Your task to perform on an android device: turn on bluetooth scan Image 0: 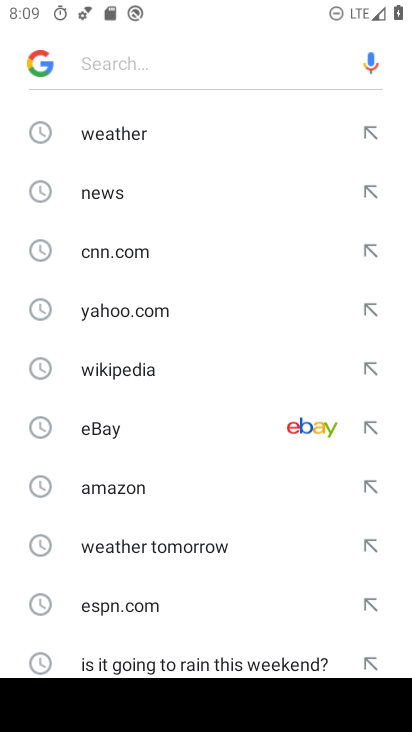
Step 0: press home button
Your task to perform on an android device: turn on bluetooth scan Image 1: 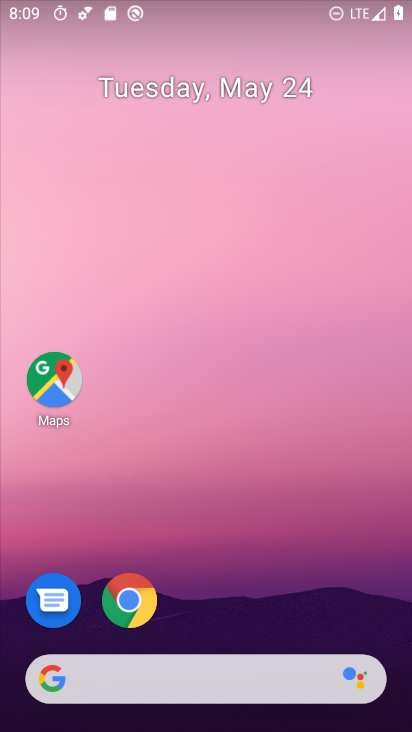
Step 1: drag from (192, 575) to (230, 16)
Your task to perform on an android device: turn on bluetooth scan Image 2: 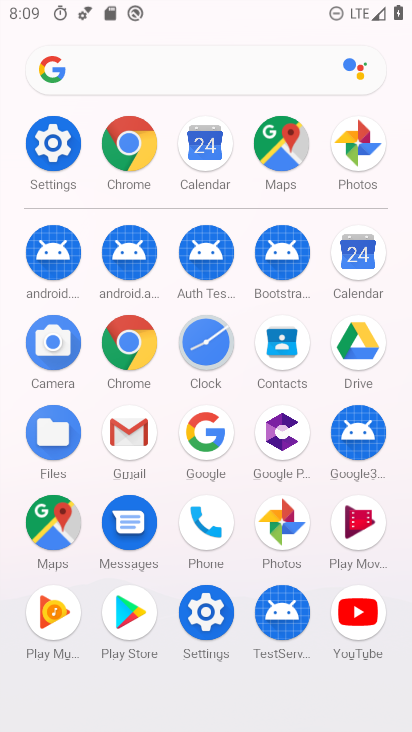
Step 2: click (62, 151)
Your task to perform on an android device: turn on bluetooth scan Image 3: 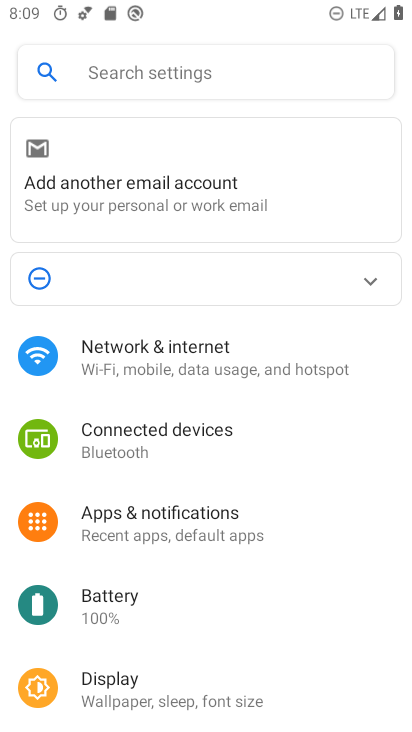
Step 3: click (162, 451)
Your task to perform on an android device: turn on bluetooth scan Image 4: 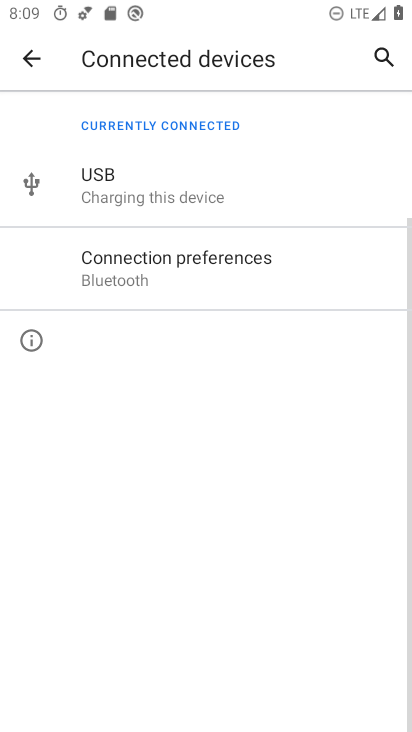
Step 4: click (151, 249)
Your task to perform on an android device: turn on bluetooth scan Image 5: 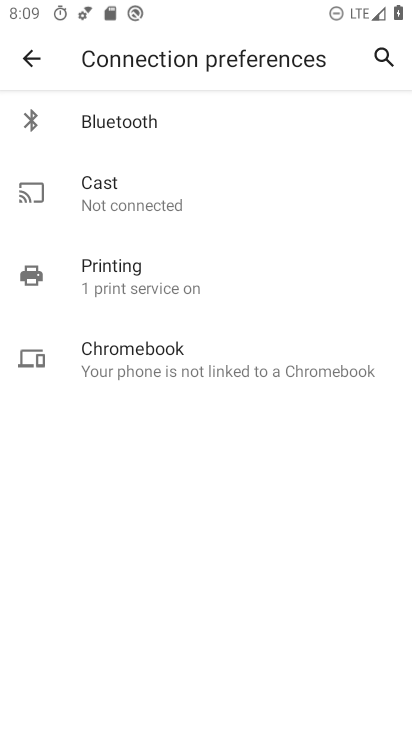
Step 5: click (151, 117)
Your task to perform on an android device: turn on bluetooth scan Image 6: 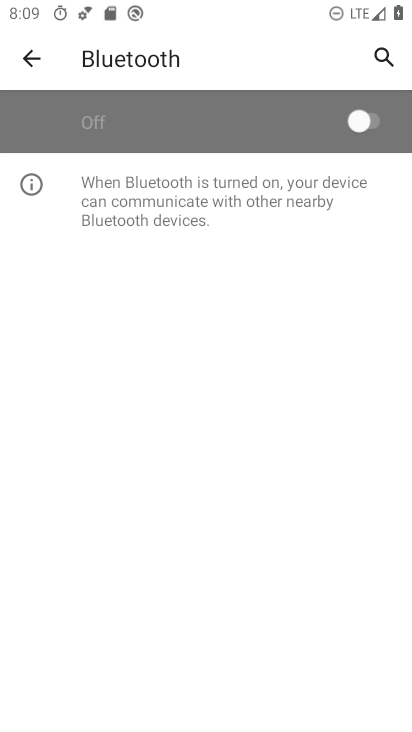
Step 6: click (374, 109)
Your task to perform on an android device: turn on bluetooth scan Image 7: 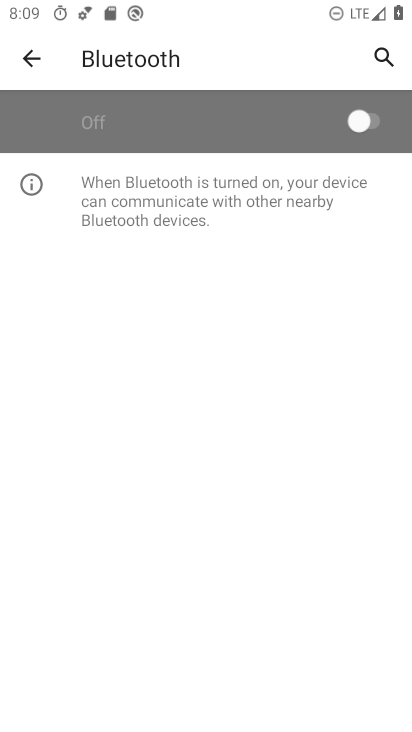
Step 7: click (361, 117)
Your task to perform on an android device: turn on bluetooth scan Image 8: 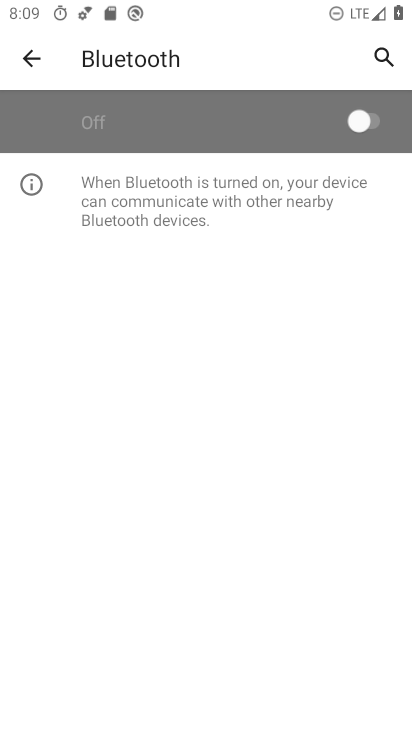
Step 8: task complete